Your task to perform on an android device: move an email to a new category in the gmail app Image 0: 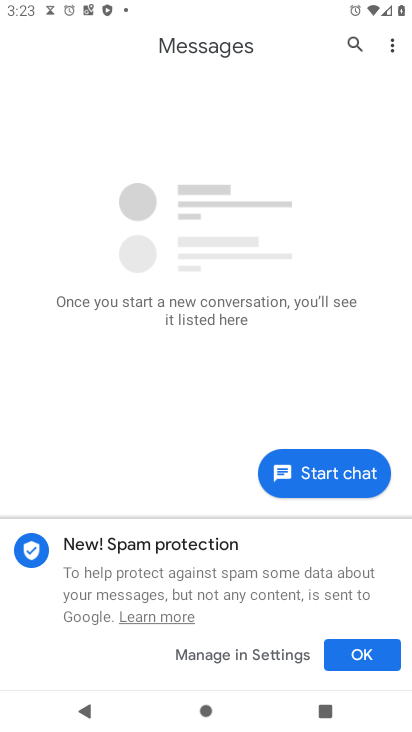
Step 0: press back button
Your task to perform on an android device: move an email to a new category in the gmail app Image 1: 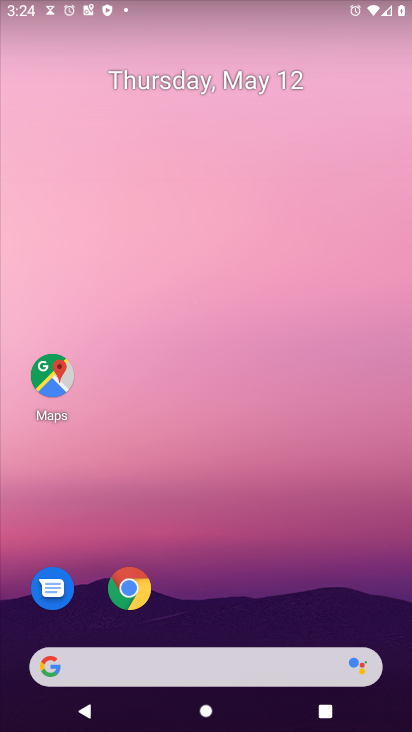
Step 1: drag from (195, 590) to (199, 77)
Your task to perform on an android device: move an email to a new category in the gmail app Image 2: 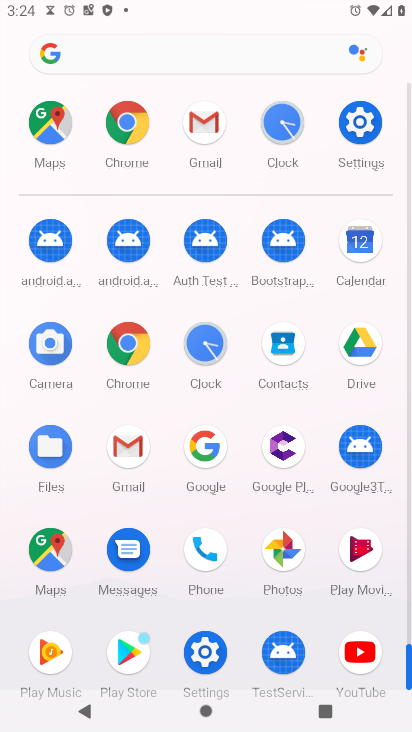
Step 2: drag from (8, 588) to (23, 286)
Your task to perform on an android device: move an email to a new category in the gmail app Image 3: 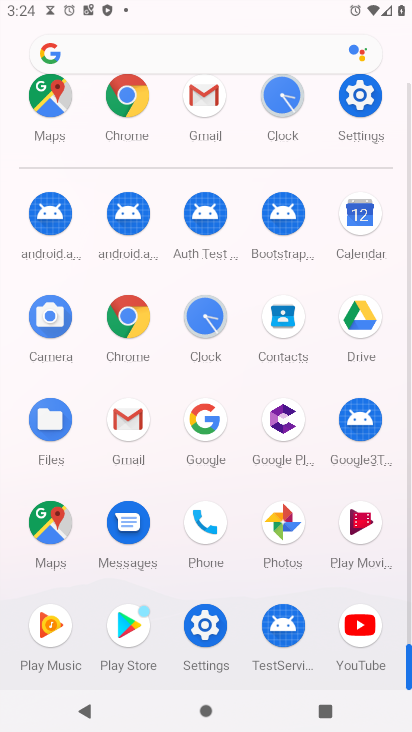
Step 3: drag from (15, 496) to (20, 304)
Your task to perform on an android device: move an email to a new category in the gmail app Image 4: 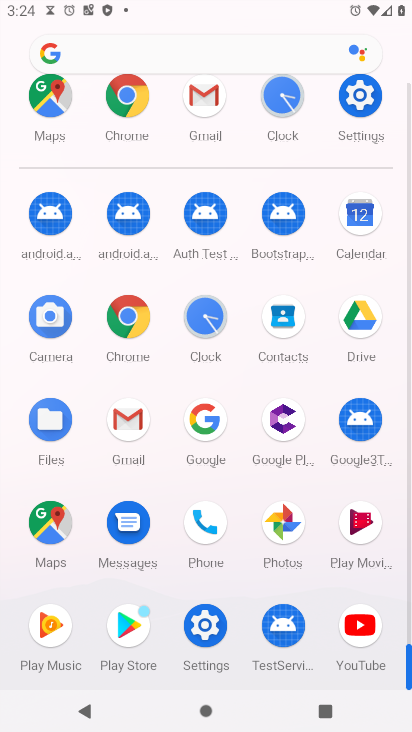
Step 4: click (127, 414)
Your task to perform on an android device: move an email to a new category in the gmail app Image 5: 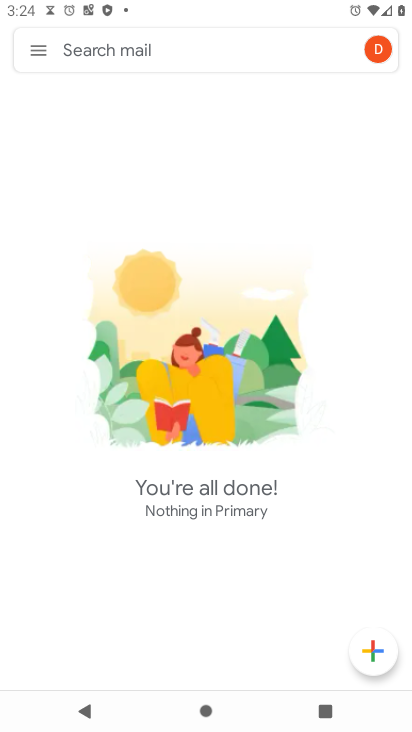
Step 5: click (39, 50)
Your task to perform on an android device: move an email to a new category in the gmail app Image 6: 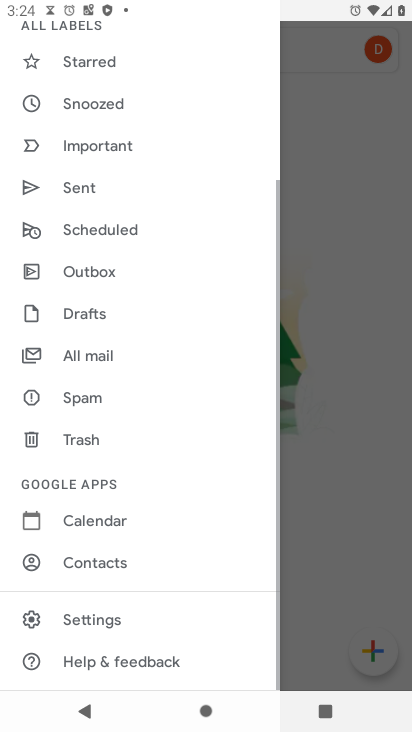
Step 6: drag from (194, 236) to (194, 426)
Your task to perform on an android device: move an email to a new category in the gmail app Image 7: 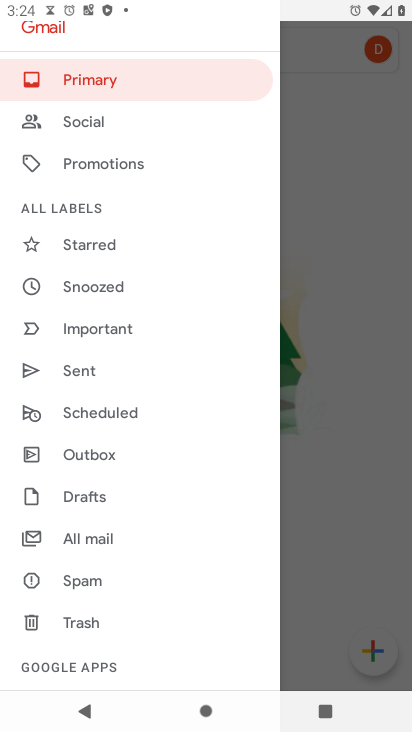
Step 7: click (119, 544)
Your task to perform on an android device: move an email to a new category in the gmail app Image 8: 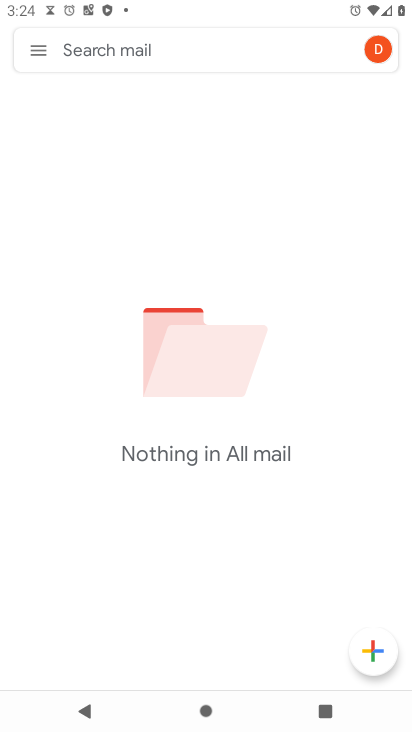
Step 8: click (42, 41)
Your task to perform on an android device: move an email to a new category in the gmail app Image 9: 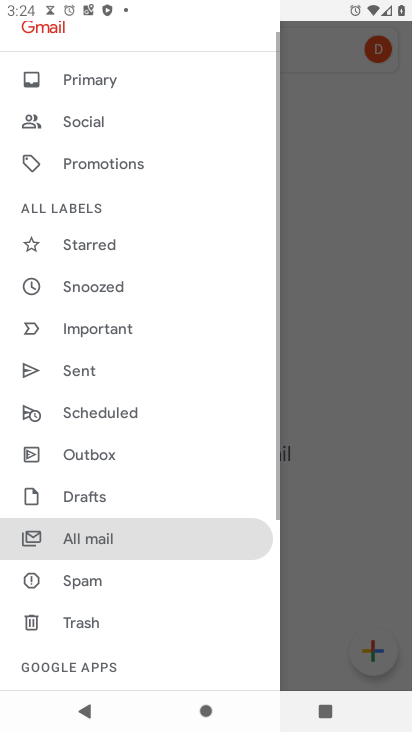
Step 9: drag from (124, 151) to (164, 647)
Your task to perform on an android device: move an email to a new category in the gmail app Image 10: 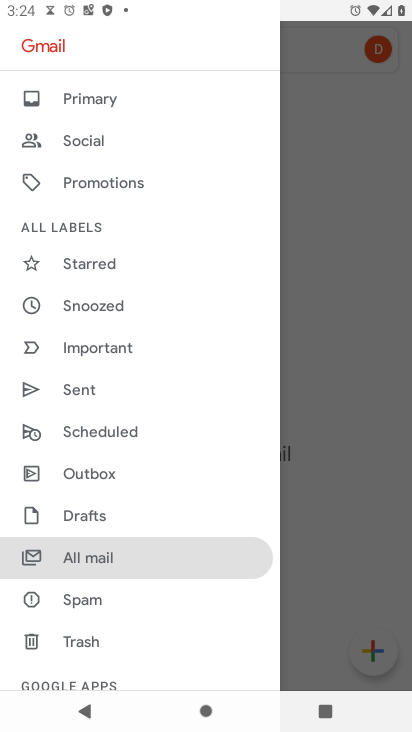
Step 10: click (130, 92)
Your task to perform on an android device: move an email to a new category in the gmail app Image 11: 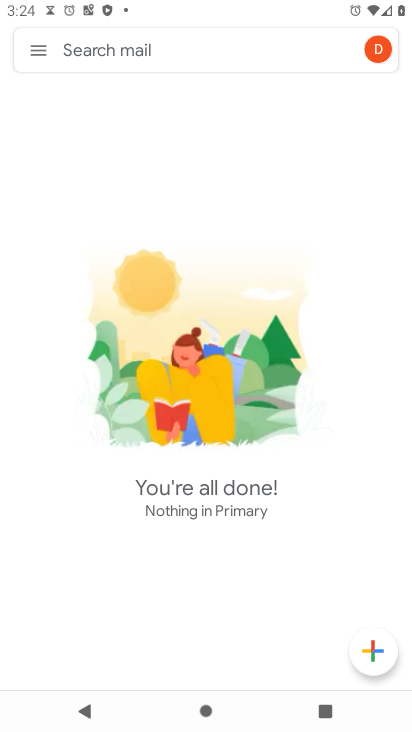
Step 11: click (43, 44)
Your task to perform on an android device: move an email to a new category in the gmail app Image 12: 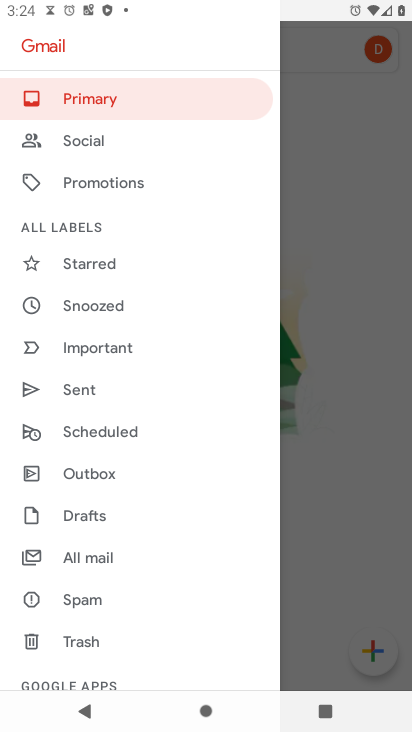
Step 12: drag from (128, 595) to (185, 80)
Your task to perform on an android device: move an email to a new category in the gmail app Image 13: 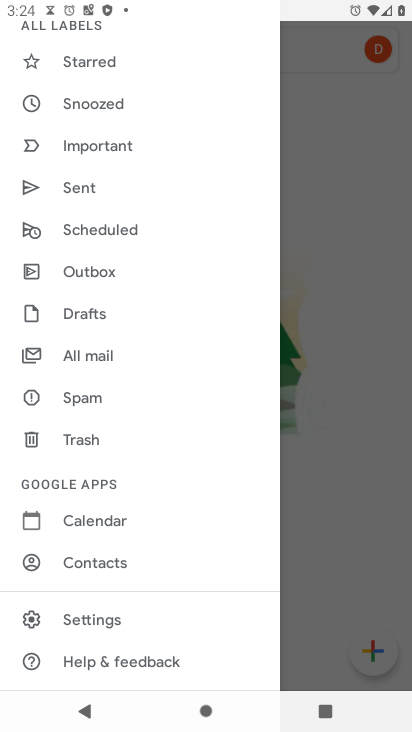
Step 13: click (106, 348)
Your task to perform on an android device: move an email to a new category in the gmail app Image 14: 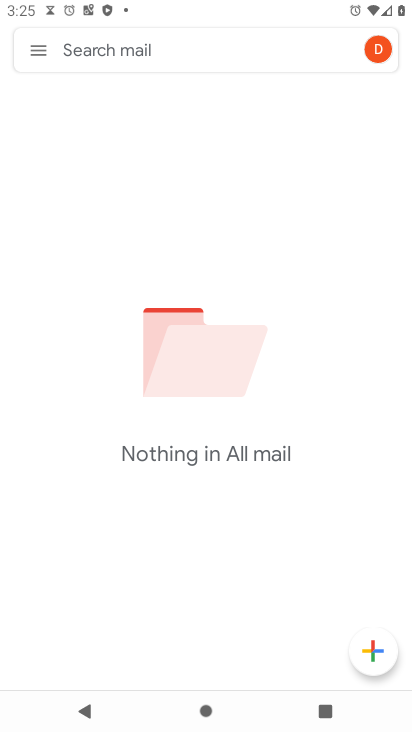
Step 14: click (15, 53)
Your task to perform on an android device: move an email to a new category in the gmail app Image 15: 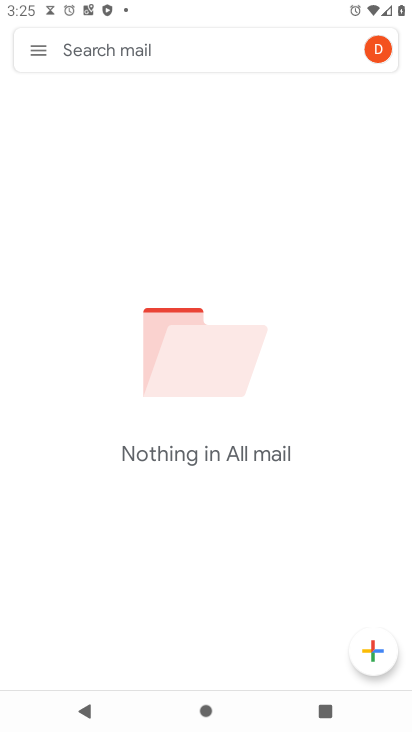
Step 15: click (29, 53)
Your task to perform on an android device: move an email to a new category in the gmail app Image 16: 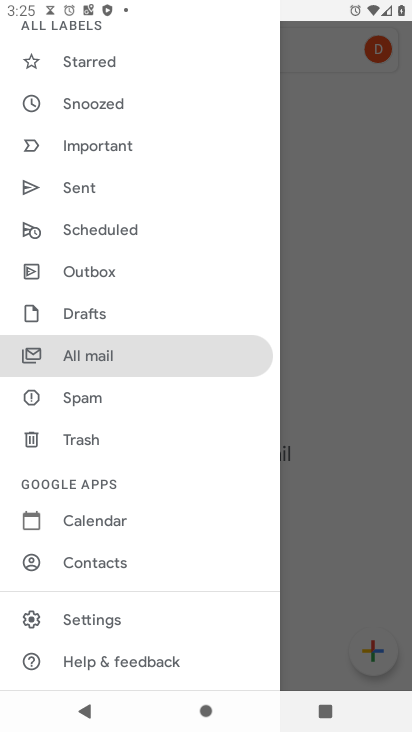
Step 16: click (127, 278)
Your task to perform on an android device: move an email to a new category in the gmail app Image 17: 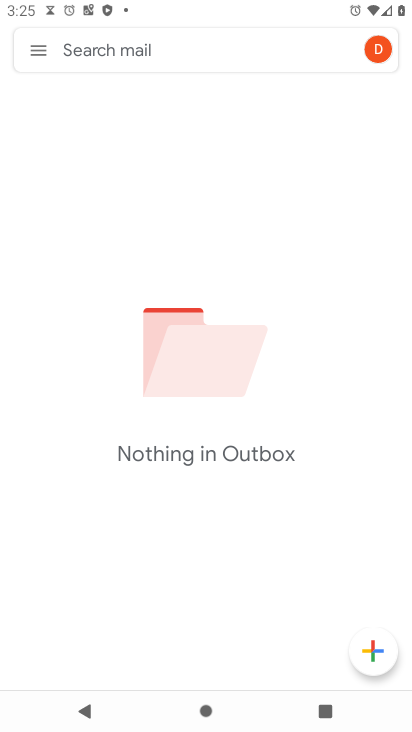
Step 17: click (46, 49)
Your task to perform on an android device: move an email to a new category in the gmail app Image 18: 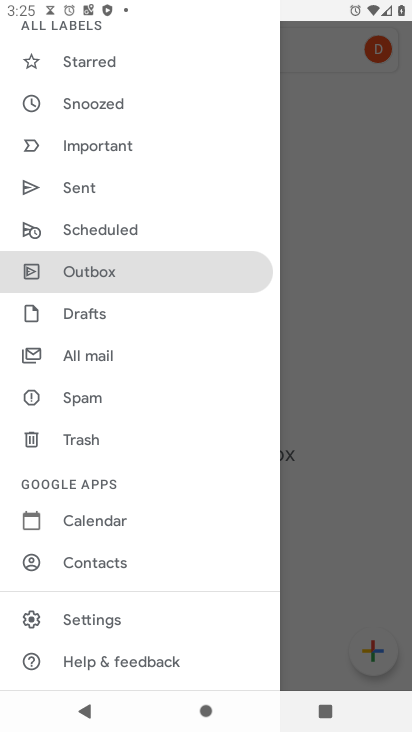
Step 18: click (130, 147)
Your task to perform on an android device: move an email to a new category in the gmail app Image 19: 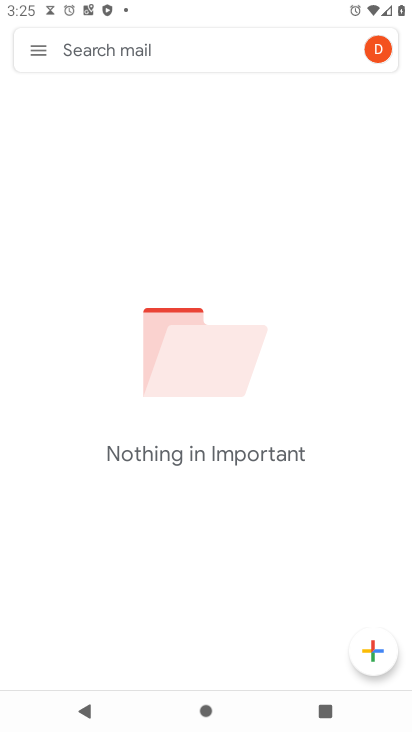
Step 19: click (38, 50)
Your task to perform on an android device: move an email to a new category in the gmail app Image 20: 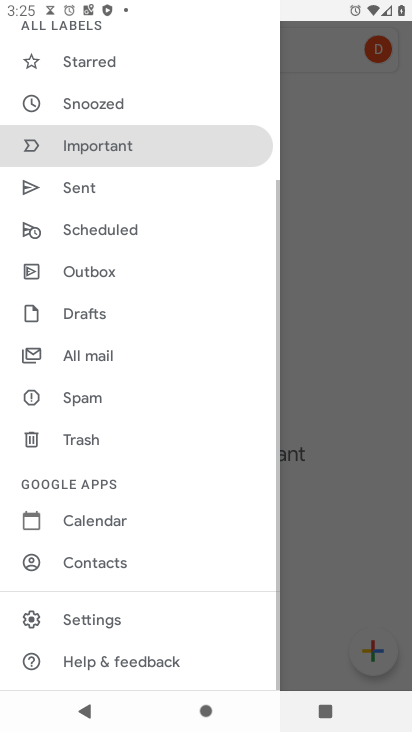
Step 20: click (133, 360)
Your task to perform on an android device: move an email to a new category in the gmail app Image 21: 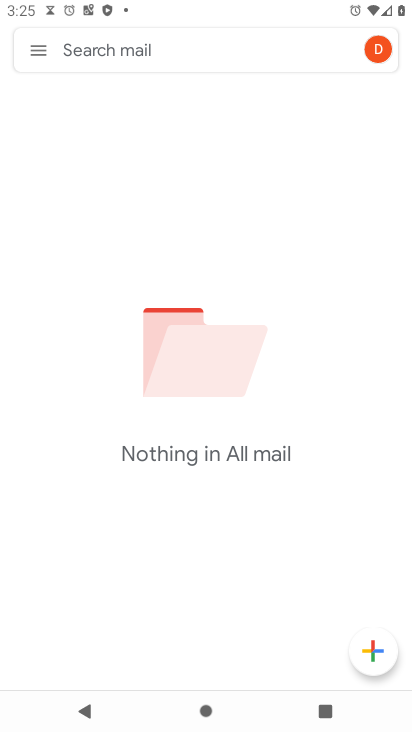
Step 21: task complete